Your task to perform on an android device: read, delete, or share a saved page in the chrome app Image 0: 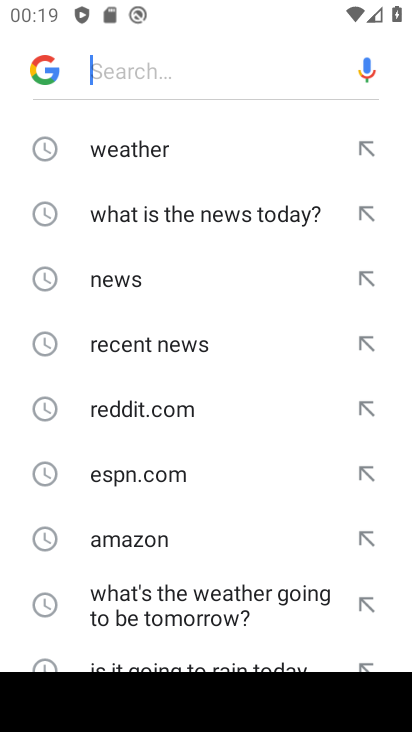
Step 0: press home button
Your task to perform on an android device: read, delete, or share a saved page in the chrome app Image 1: 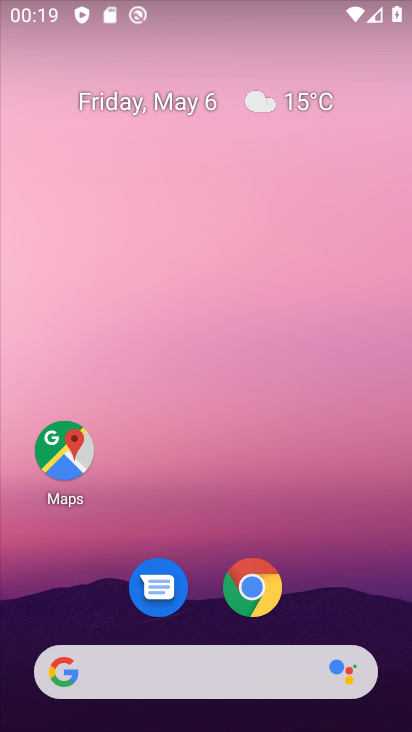
Step 1: click (340, 287)
Your task to perform on an android device: read, delete, or share a saved page in the chrome app Image 2: 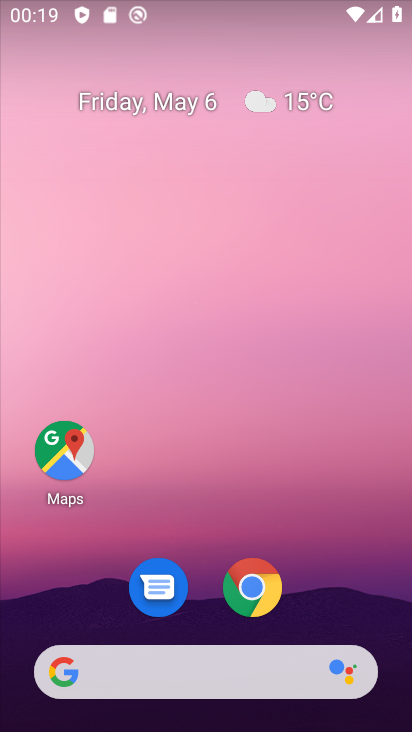
Step 2: drag from (389, 655) to (311, 193)
Your task to perform on an android device: read, delete, or share a saved page in the chrome app Image 3: 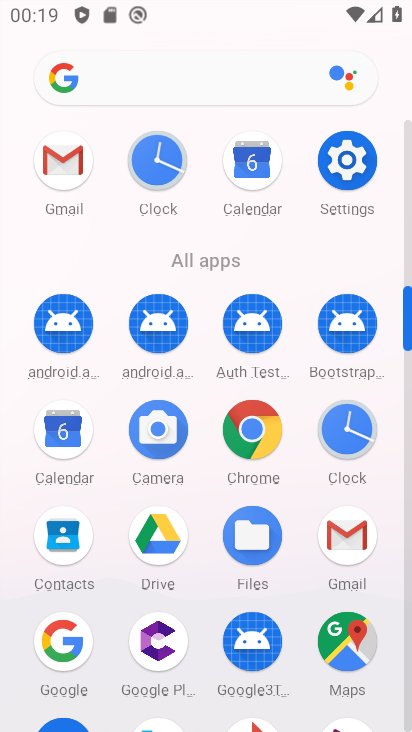
Step 3: click (248, 414)
Your task to perform on an android device: read, delete, or share a saved page in the chrome app Image 4: 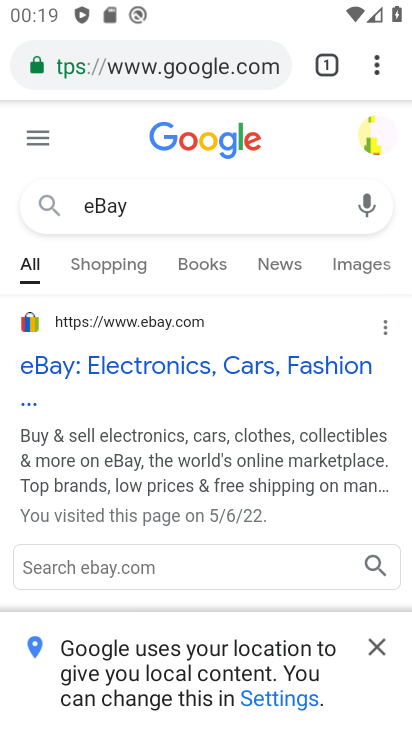
Step 4: click (369, 66)
Your task to perform on an android device: read, delete, or share a saved page in the chrome app Image 5: 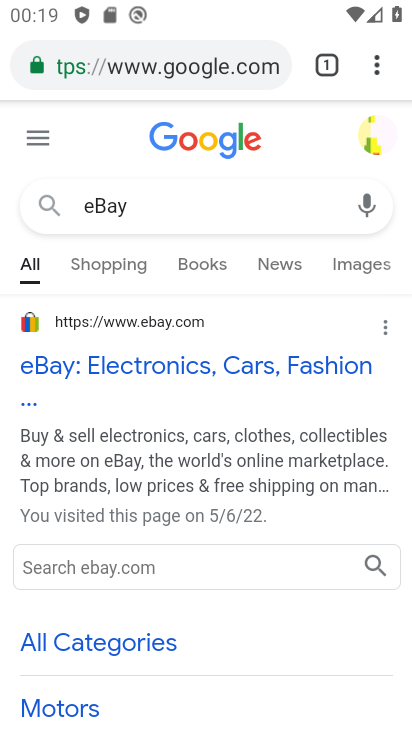
Step 5: click (373, 62)
Your task to perform on an android device: read, delete, or share a saved page in the chrome app Image 6: 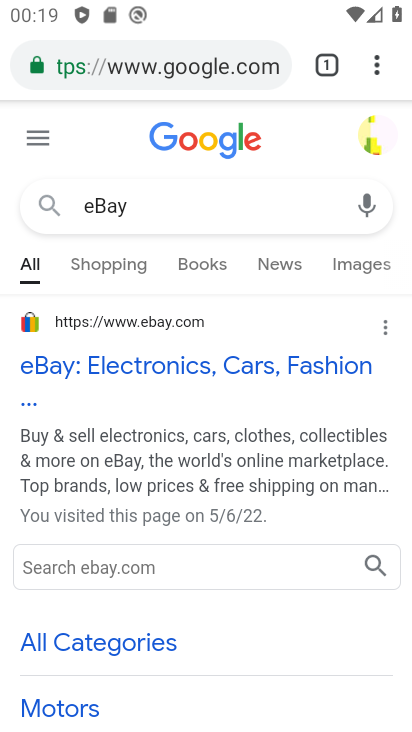
Step 6: click (374, 61)
Your task to perform on an android device: read, delete, or share a saved page in the chrome app Image 7: 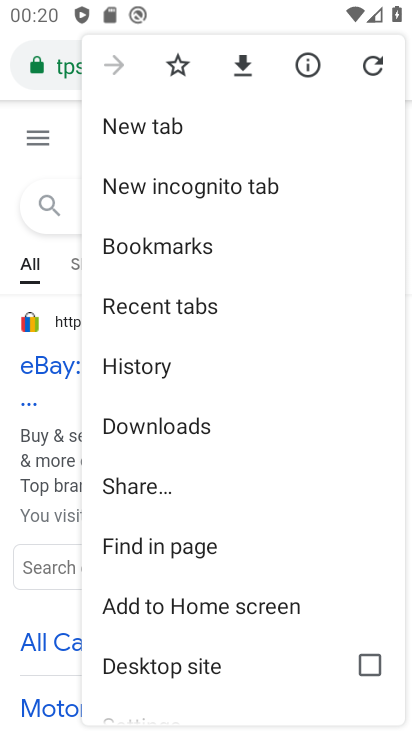
Step 7: click (145, 426)
Your task to perform on an android device: read, delete, or share a saved page in the chrome app Image 8: 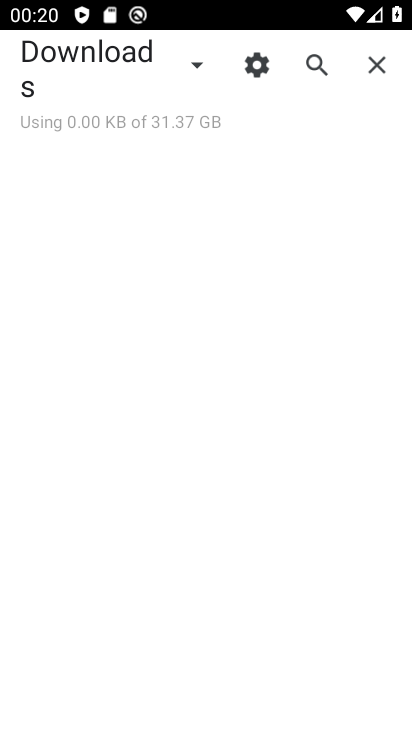
Step 8: task complete